Your task to perform on an android device: clear all cookies in the chrome app Image 0: 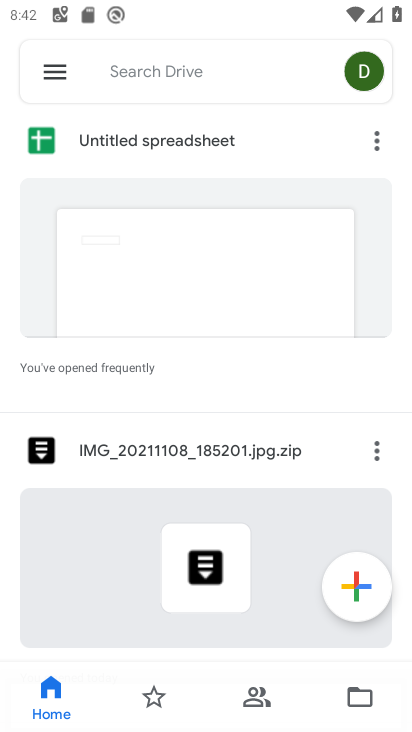
Step 0: press home button
Your task to perform on an android device: clear all cookies in the chrome app Image 1: 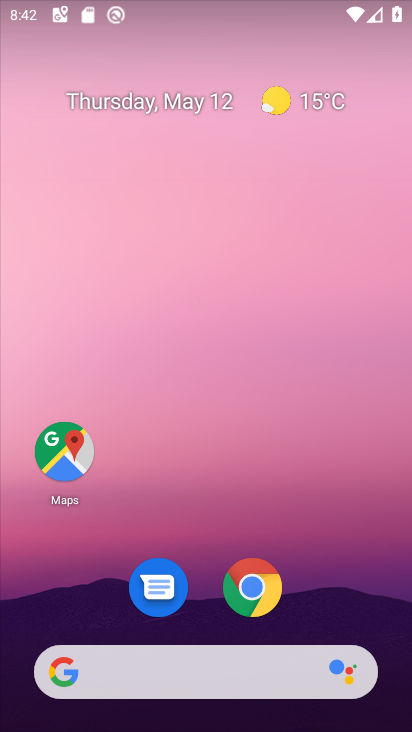
Step 1: drag from (383, 608) to (242, 18)
Your task to perform on an android device: clear all cookies in the chrome app Image 2: 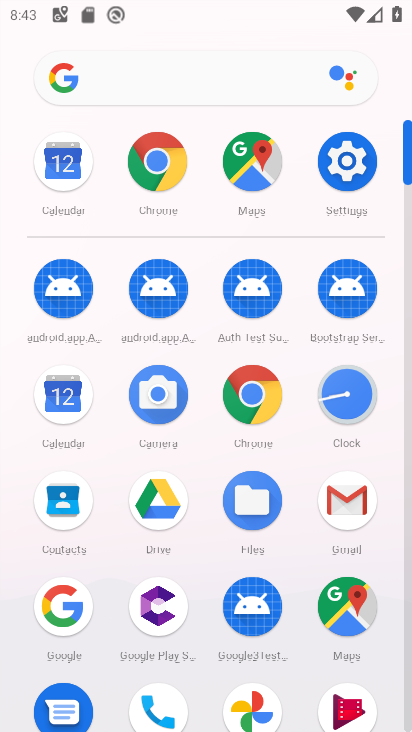
Step 2: click (260, 378)
Your task to perform on an android device: clear all cookies in the chrome app Image 3: 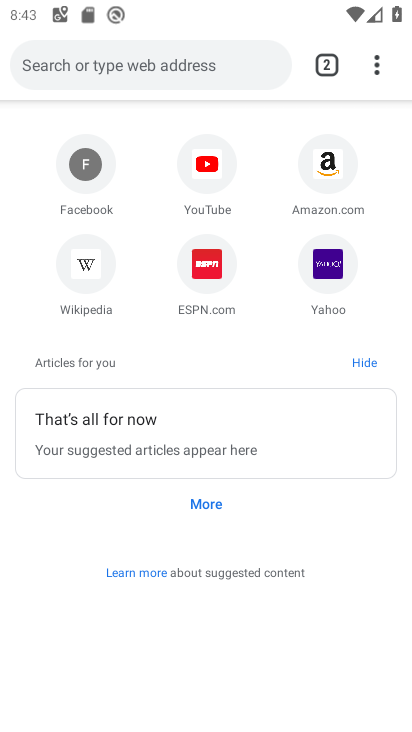
Step 3: click (361, 60)
Your task to perform on an android device: clear all cookies in the chrome app Image 4: 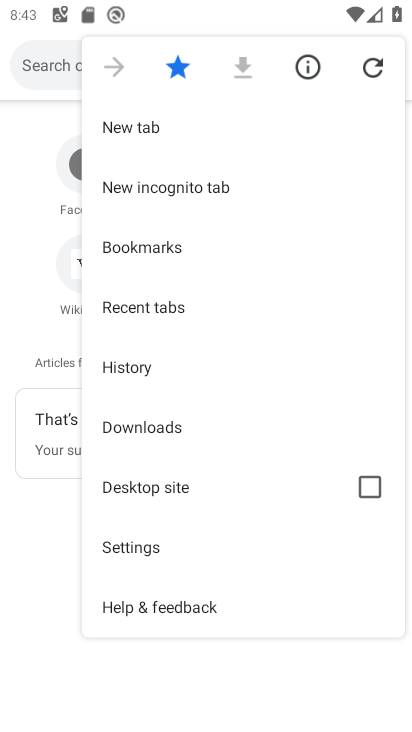
Step 4: click (189, 364)
Your task to perform on an android device: clear all cookies in the chrome app Image 5: 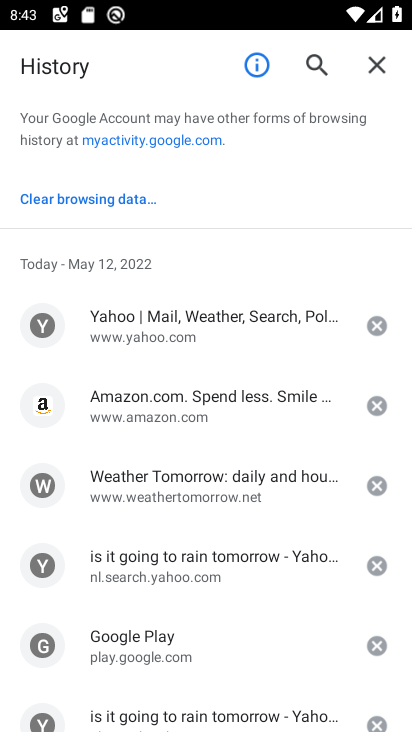
Step 5: click (111, 207)
Your task to perform on an android device: clear all cookies in the chrome app Image 6: 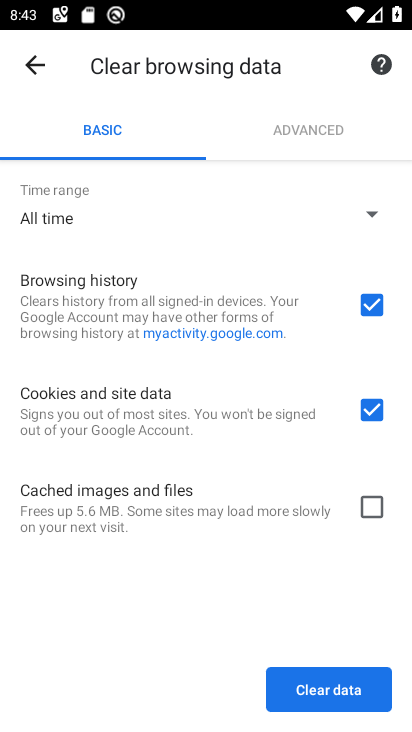
Step 6: click (311, 687)
Your task to perform on an android device: clear all cookies in the chrome app Image 7: 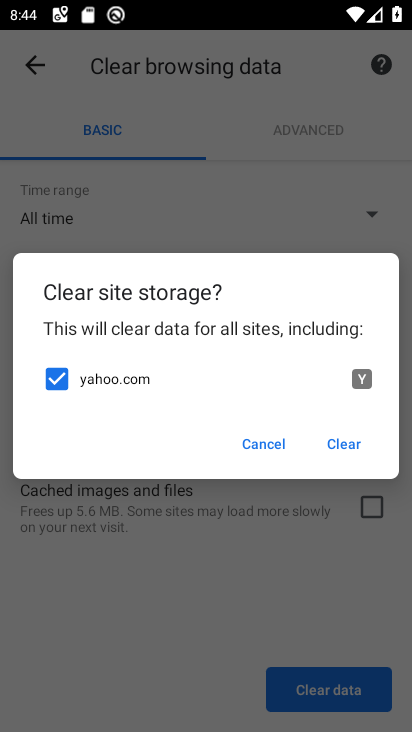
Step 7: click (354, 448)
Your task to perform on an android device: clear all cookies in the chrome app Image 8: 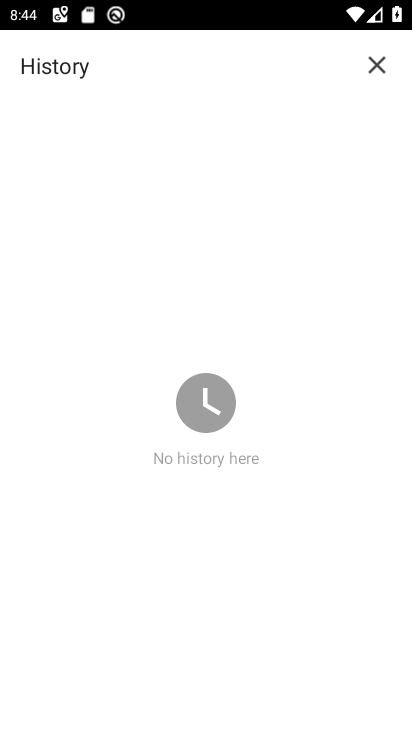
Step 8: task complete